Your task to perform on an android device: Search for Italian restaurants on Maps Image 0: 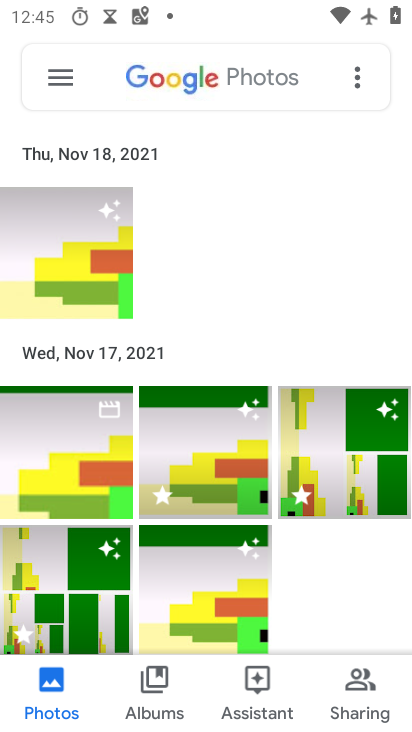
Step 0: press home button
Your task to perform on an android device: Search for Italian restaurants on Maps Image 1: 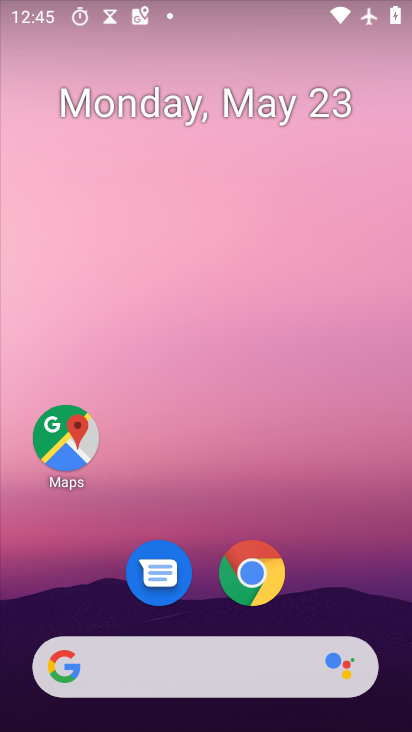
Step 1: click (60, 450)
Your task to perform on an android device: Search for Italian restaurants on Maps Image 2: 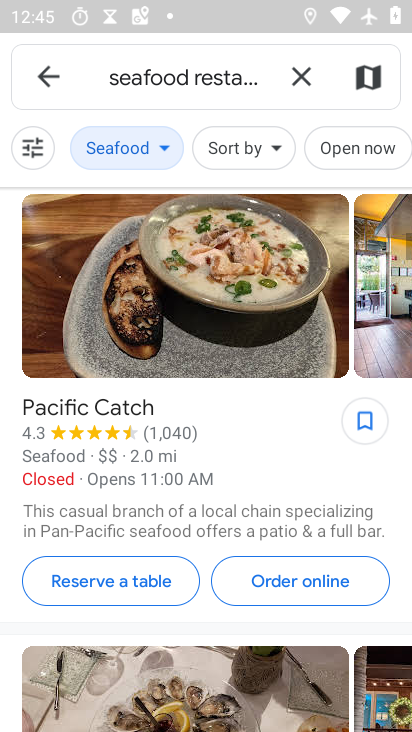
Step 2: click (302, 75)
Your task to perform on an android device: Search for Italian restaurants on Maps Image 3: 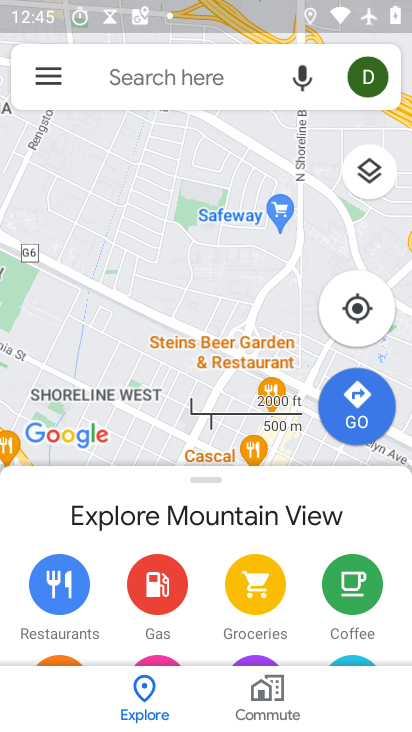
Step 3: click (149, 73)
Your task to perform on an android device: Search for Italian restaurants on Maps Image 4: 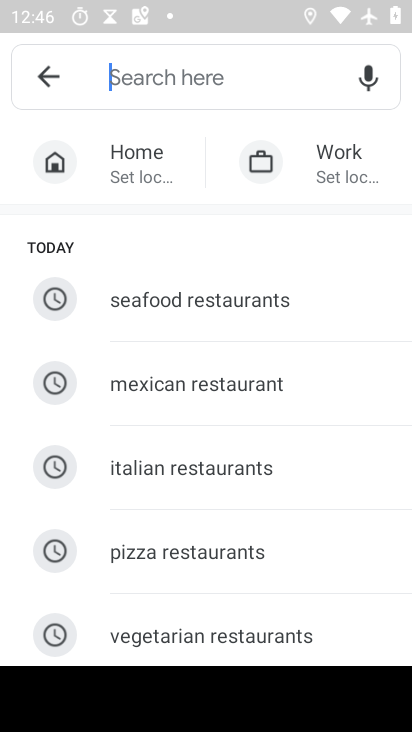
Step 4: click (201, 464)
Your task to perform on an android device: Search for Italian restaurants on Maps Image 5: 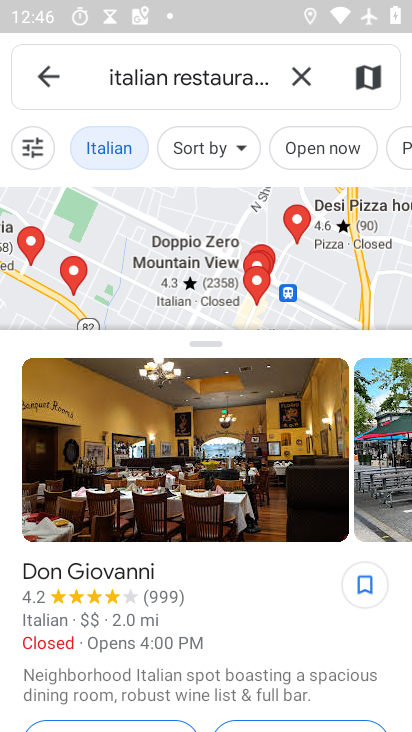
Step 5: task complete